Your task to perform on an android device: toggle translation in the chrome app Image 0: 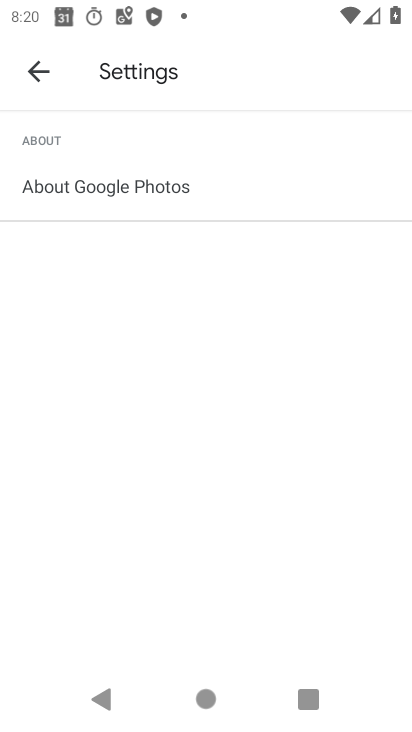
Step 0: press home button
Your task to perform on an android device: toggle translation in the chrome app Image 1: 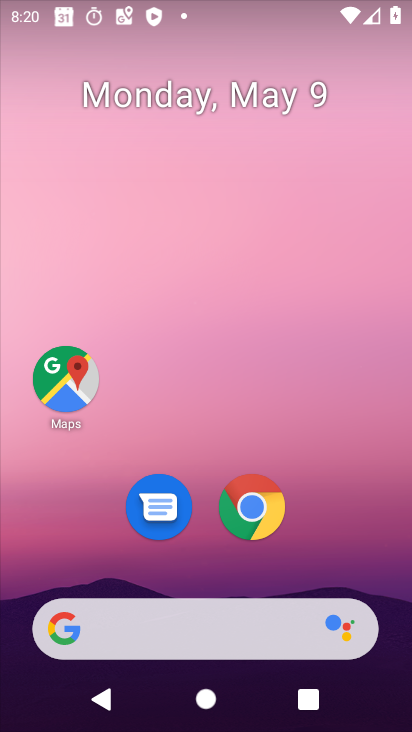
Step 1: click (244, 488)
Your task to perform on an android device: toggle translation in the chrome app Image 2: 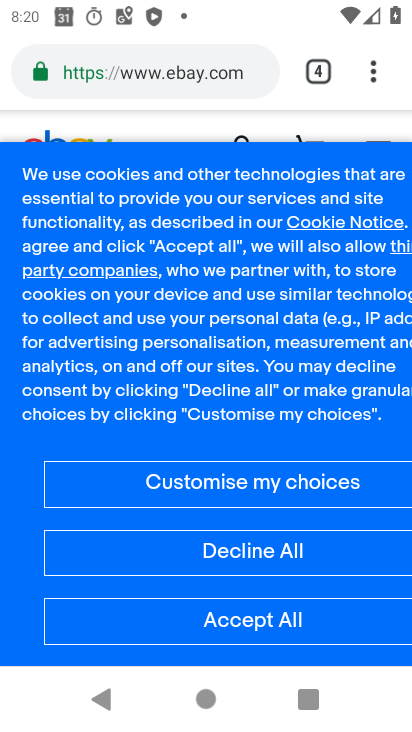
Step 2: click (372, 89)
Your task to perform on an android device: toggle translation in the chrome app Image 3: 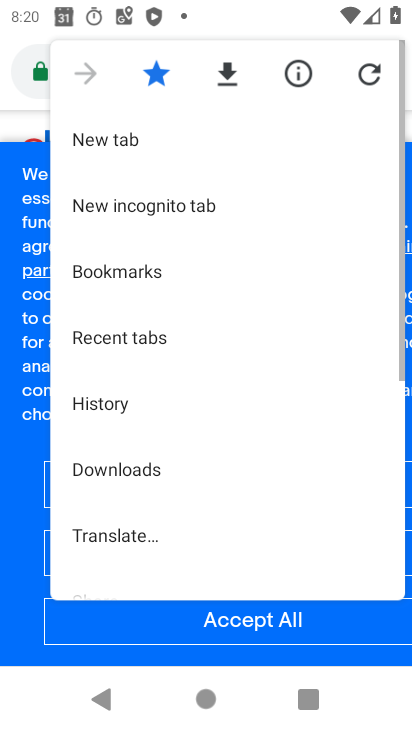
Step 3: drag from (249, 459) to (230, 188)
Your task to perform on an android device: toggle translation in the chrome app Image 4: 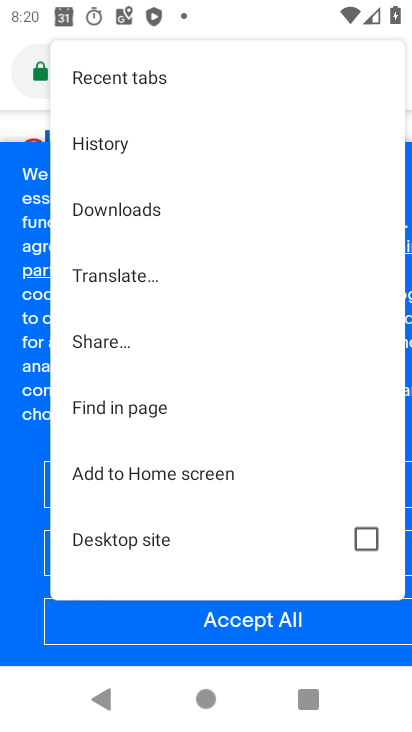
Step 4: drag from (150, 519) to (185, 375)
Your task to perform on an android device: toggle translation in the chrome app Image 5: 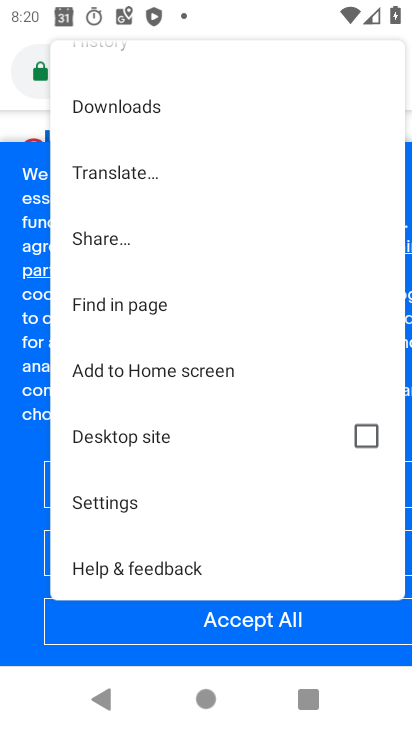
Step 5: click (116, 491)
Your task to perform on an android device: toggle translation in the chrome app Image 6: 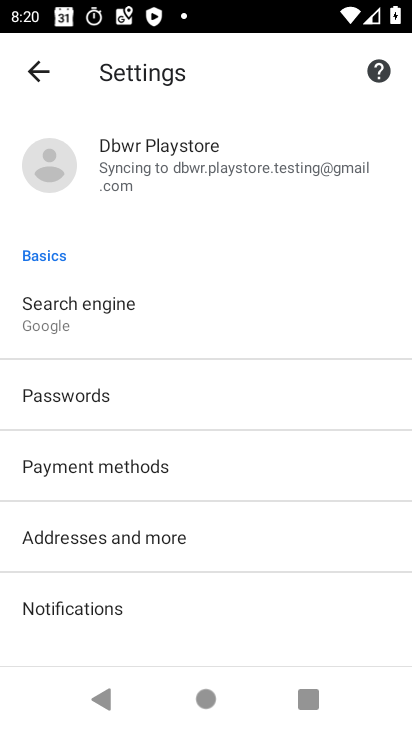
Step 6: drag from (167, 599) to (226, 376)
Your task to perform on an android device: toggle translation in the chrome app Image 7: 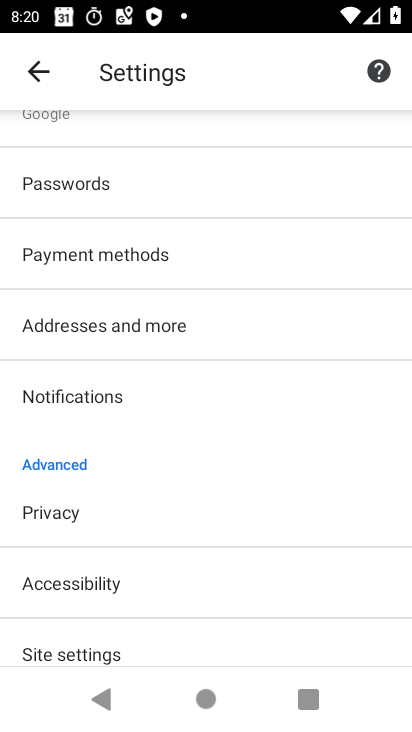
Step 7: drag from (100, 636) to (195, 461)
Your task to perform on an android device: toggle translation in the chrome app Image 8: 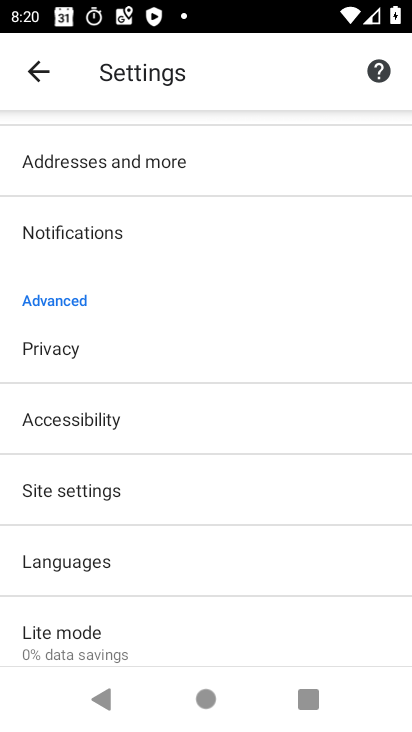
Step 8: click (82, 584)
Your task to perform on an android device: toggle translation in the chrome app Image 9: 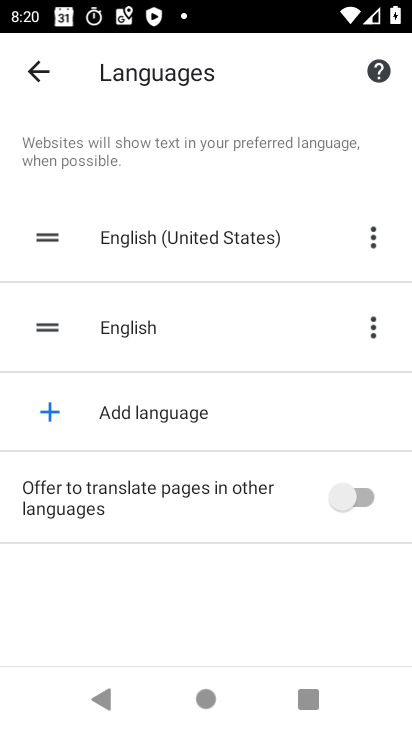
Step 9: click (357, 488)
Your task to perform on an android device: toggle translation in the chrome app Image 10: 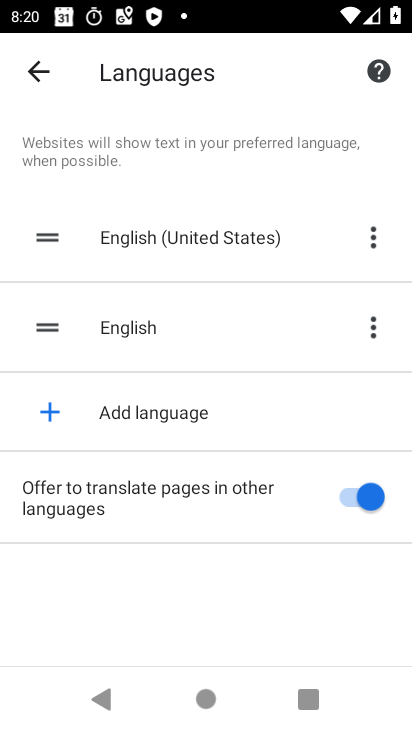
Step 10: task complete